Your task to perform on an android device: Show me recent news Image 0: 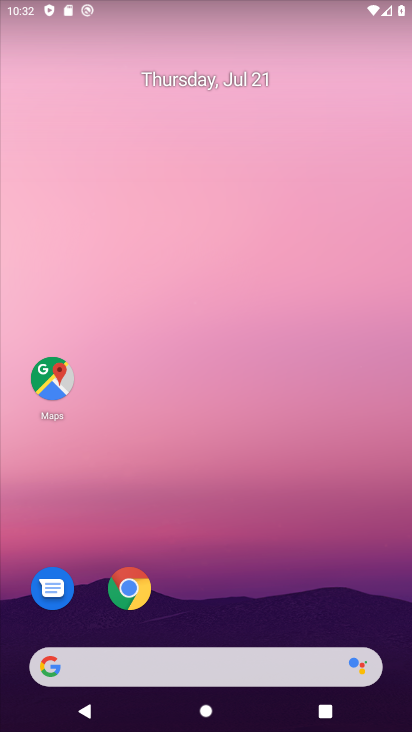
Step 0: drag from (182, 606) to (217, 140)
Your task to perform on an android device: Show me recent news Image 1: 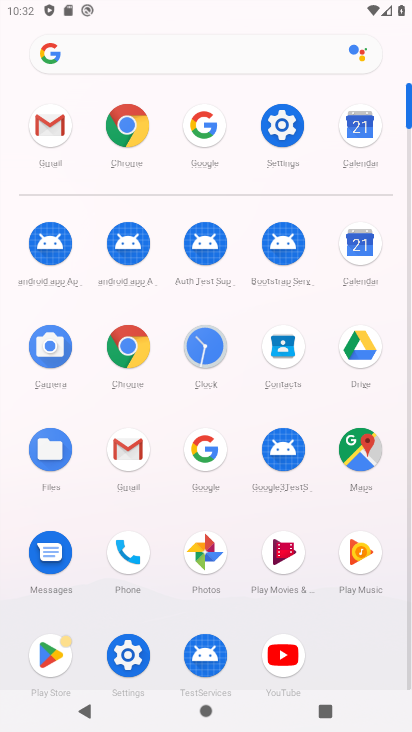
Step 1: click (202, 540)
Your task to perform on an android device: Show me recent news Image 2: 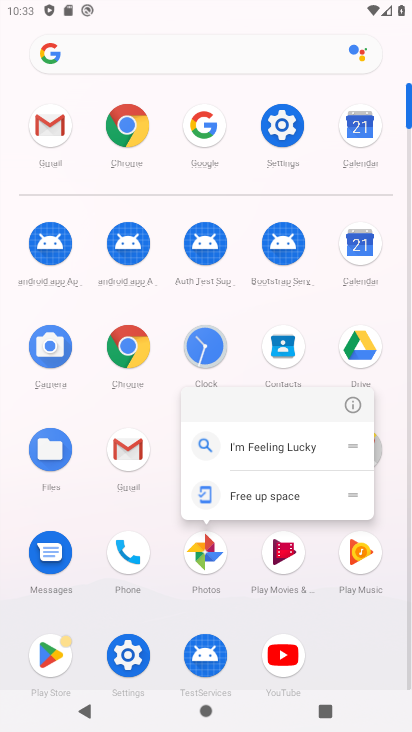
Step 2: click (350, 405)
Your task to perform on an android device: Show me recent news Image 3: 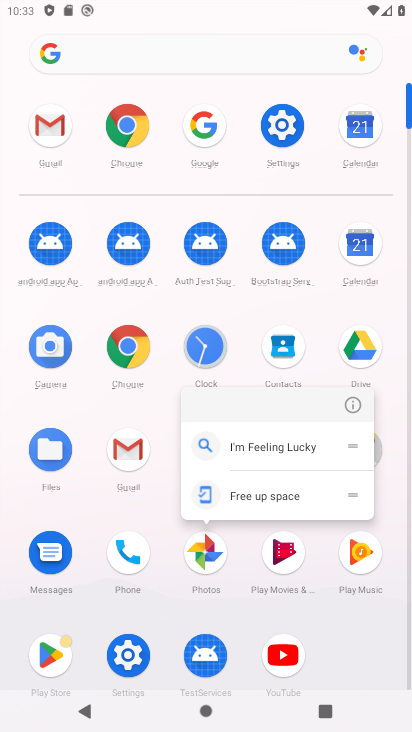
Step 3: click (350, 405)
Your task to perform on an android device: Show me recent news Image 4: 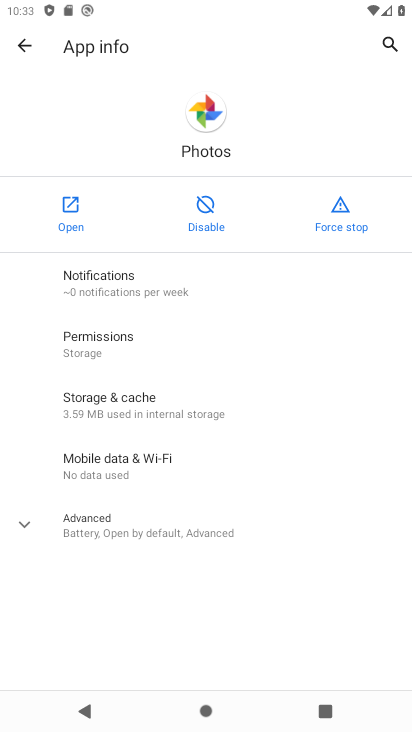
Step 4: click (61, 205)
Your task to perform on an android device: Show me recent news Image 5: 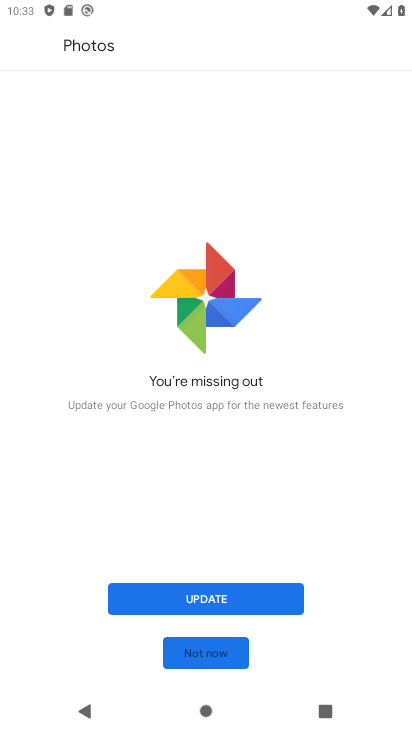
Step 5: click (194, 645)
Your task to perform on an android device: Show me recent news Image 6: 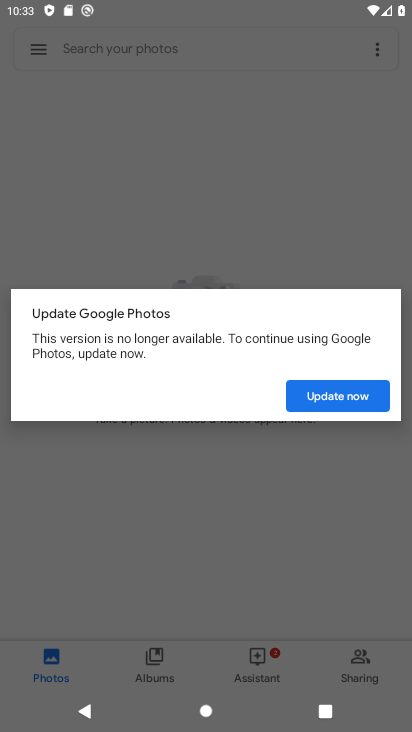
Step 6: task complete